Your task to perform on an android device: find which apps use the phone's location Image 0: 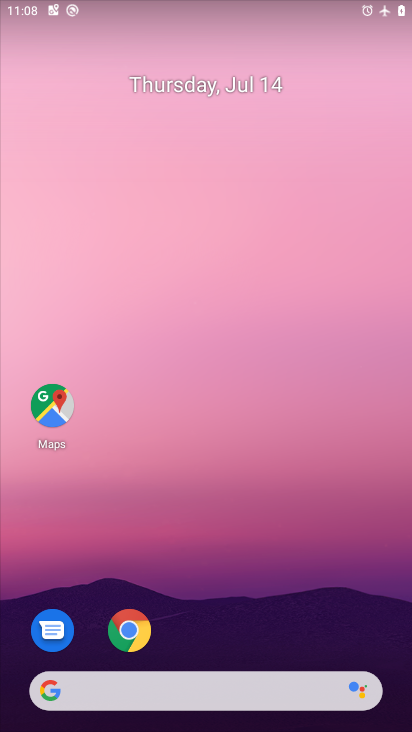
Step 0: drag from (23, 705) to (236, 66)
Your task to perform on an android device: find which apps use the phone's location Image 1: 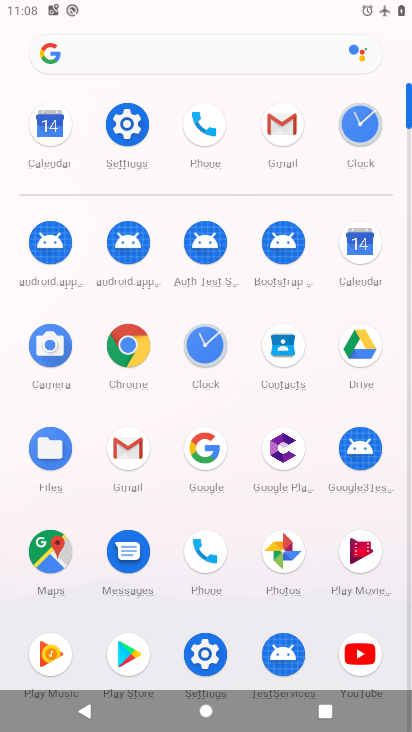
Step 1: click (200, 640)
Your task to perform on an android device: find which apps use the phone's location Image 2: 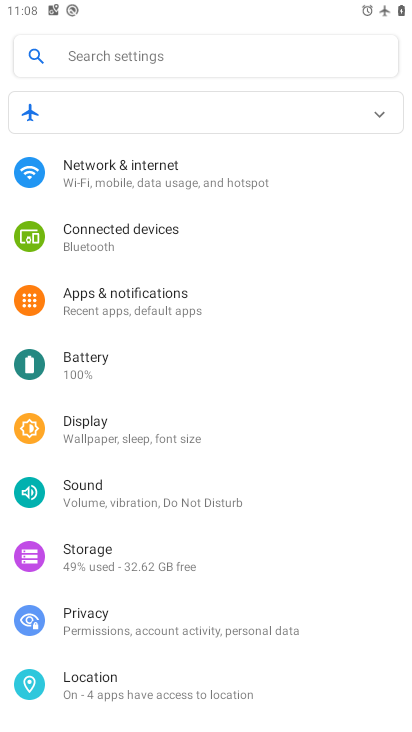
Step 2: click (96, 673)
Your task to perform on an android device: find which apps use the phone's location Image 3: 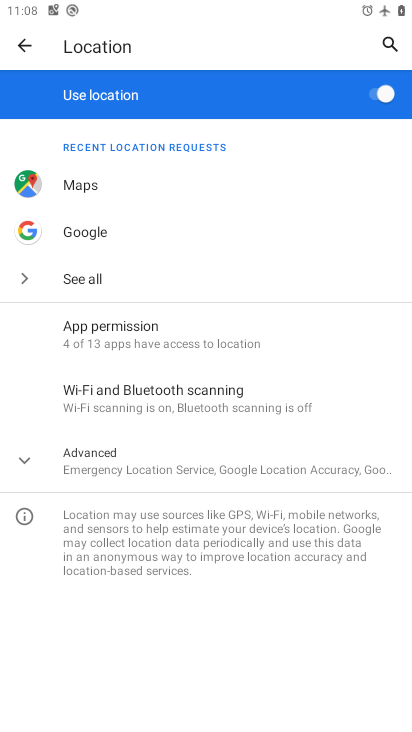
Step 3: click (108, 355)
Your task to perform on an android device: find which apps use the phone's location Image 4: 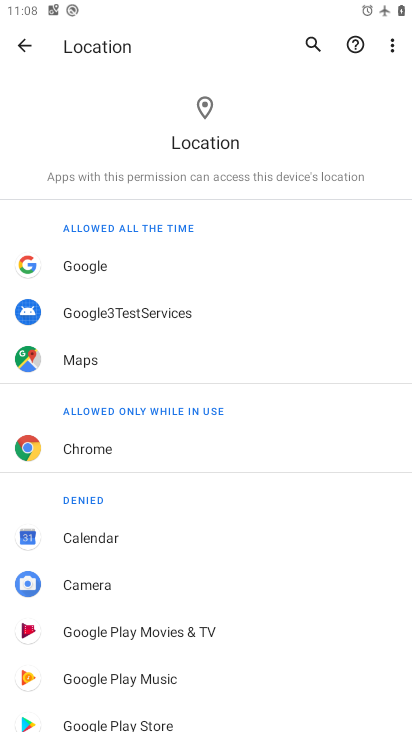
Step 4: task complete